Your task to perform on an android device: Show the shopping cart on ebay.com. Search for "usb-b" on ebay.com, select the first entry, add it to the cart, then select checkout. Image 0: 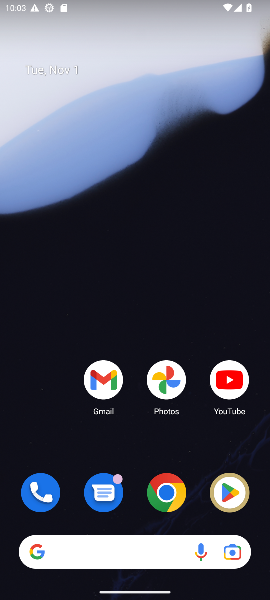
Step 0: click (166, 498)
Your task to perform on an android device: Show the shopping cart on ebay.com. Search for "usb-b" on ebay.com, select the first entry, add it to the cart, then select checkout. Image 1: 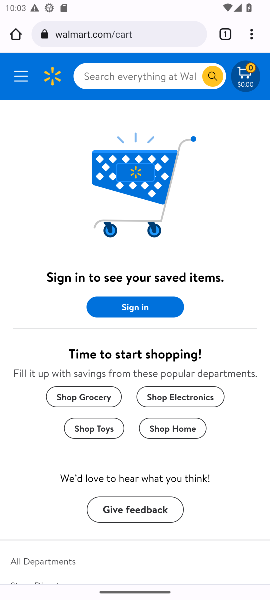
Step 1: press home button
Your task to perform on an android device: Show the shopping cart on ebay.com. Search for "usb-b" on ebay.com, select the first entry, add it to the cart, then select checkout. Image 2: 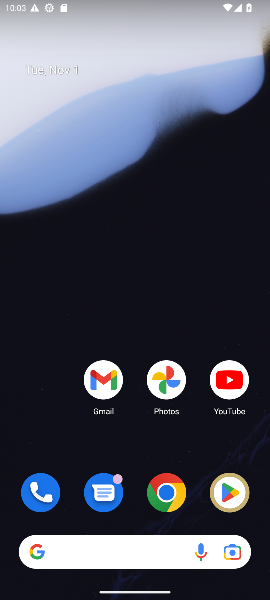
Step 2: click (165, 491)
Your task to perform on an android device: Show the shopping cart on ebay.com. Search for "usb-b" on ebay.com, select the first entry, add it to the cart, then select checkout. Image 3: 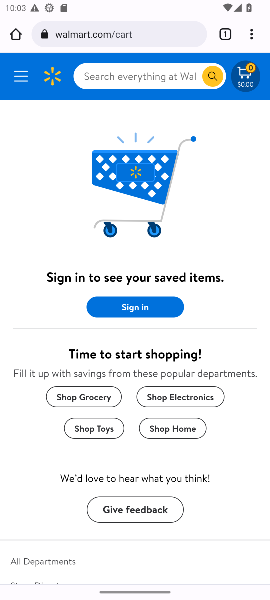
Step 3: click (91, 31)
Your task to perform on an android device: Show the shopping cart on ebay.com. Search for "usb-b" on ebay.com, select the first entry, add it to the cart, then select checkout. Image 4: 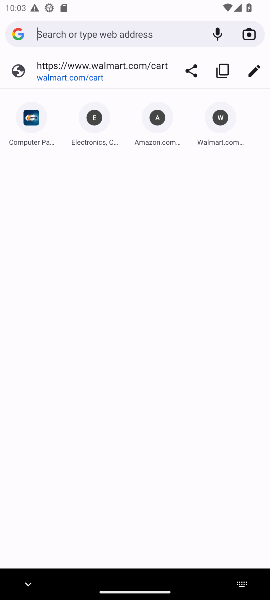
Step 4: type "ebay.com"
Your task to perform on an android device: Show the shopping cart on ebay.com. Search for "usb-b" on ebay.com, select the first entry, add it to the cart, then select checkout. Image 5: 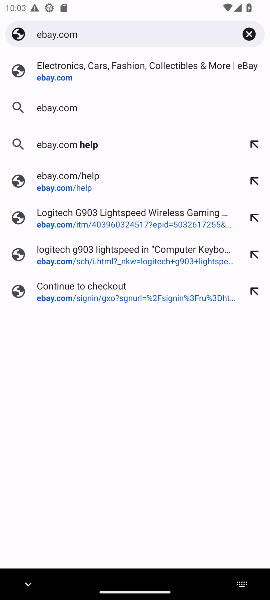
Step 5: click (67, 69)
Your task to perform on an android device: Show the shopping cart on ebay.com. Search for "usb-b" on ebay.com, select the first entry, add it to the cart, then select checkout. Image 6: 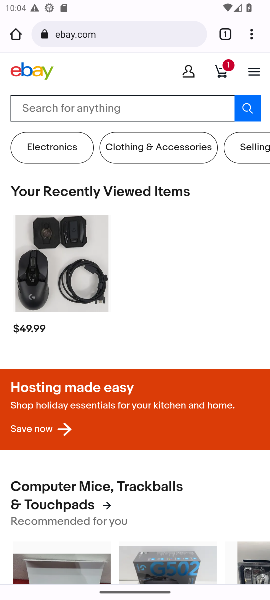
Step 6: click (93, 108)
Your task to perform on an android device: Show the shopping cart on ebay.com. Search for "usb-b" on ebay.com, select the first entry, add it to the cart, then select checkout. Image 7: 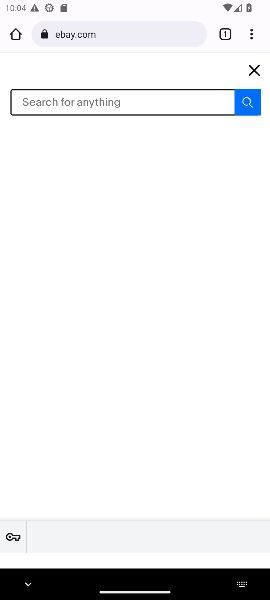
Step 7: type "usb - b "
Your task to perform on an android device: Show the shopping cart on ebay.com. Search for "usb-b" on ebay.com, select the first entry, add it to the cart, then select checkout. Image 8: 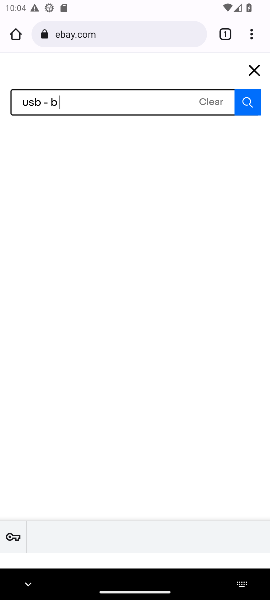
Step 8: type ""
Your task to perform on an android device: Show the shopping cart on ebay.com. Search for "usb-b" on ebay.com, select the first entry, add it to the cart, then select checkout. Image 9: 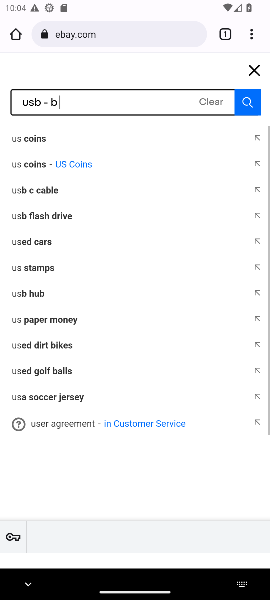
Step 9: click (21, 189)
Your task to perform on an android device: Show the shopping cart on ebay.com. Search for "usb-b" on ebay.com, select the first entry, add it to the cart, then select checkout. Image 10: 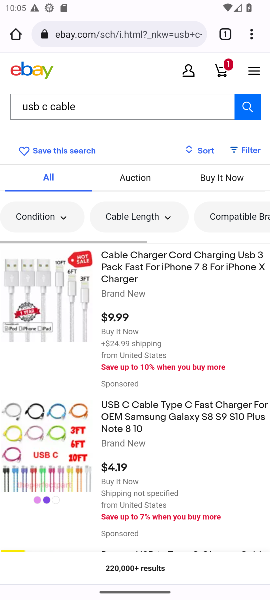
Step 10: drag from (74, 460) to (74, 329)
Your task to perform on an android device: Show the shopping cart on ebay.com. Search for "usb-b" on ebay.com, select the first entry, add it to the cart, then select checkout. Image 11: 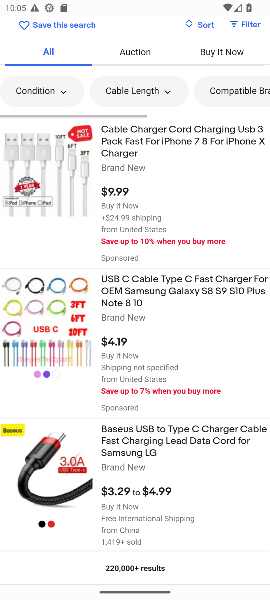
Step 11: drag from (132, 484) to (217, 142)
Your task to perform on an android device: Show the shopping cart on ebay.com. Search for "usb-b" on ebay.com, select the first entry, add it to the cart, then select checkout. Image 12: 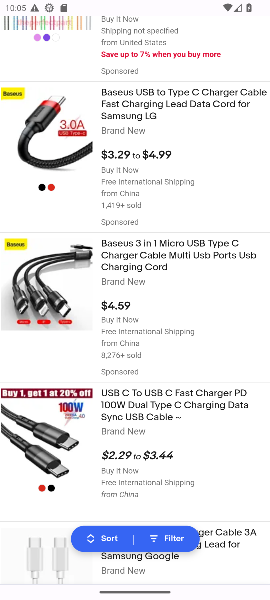
Step 12: drag from (149, 433) to (206, 105)
Your task to perform on an android device: Show the shopping cart on ebay.com. Search for "usb-b" on ebay.com, select the first entry, add it to the cart, then select checkout. Image 13: 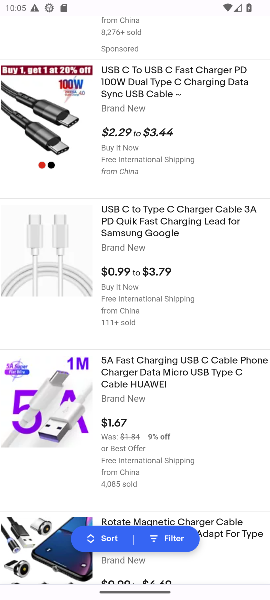
Step 13: click (164, 369)
Your task to perform on an android device: Show the shopping cart on ebay.com. Search for "usb-b" on ebay.com, select the first entry, add it to the cart, then select checkout. Image 14: 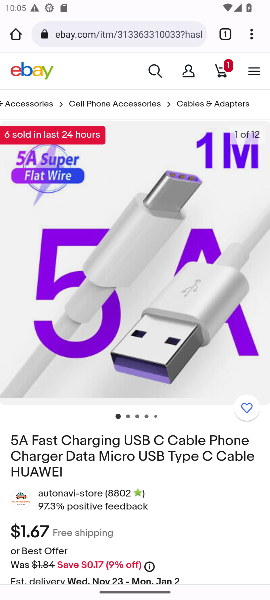
Step 14: drag from (168, 436) to (265, 66)
Your task to perform on an android device: Show the shopping cart on ebay.com. Search for "usb-b" on ebay.com, select the first entry, add it to the cart, then select checkout. Image 15: 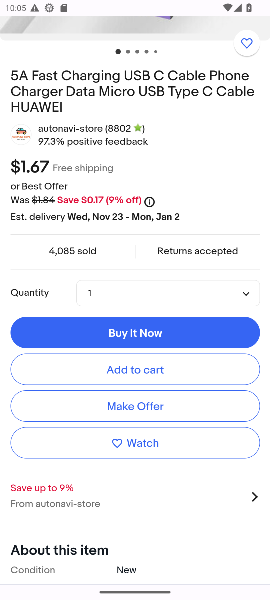
Step 15: click (136, 376)
Your task to perform on an android device: Show the shopping cart on ebay.com. Search for "usb-b" on ebay.com, select the first entry, add it to the cart, then select checkout. Image 16: 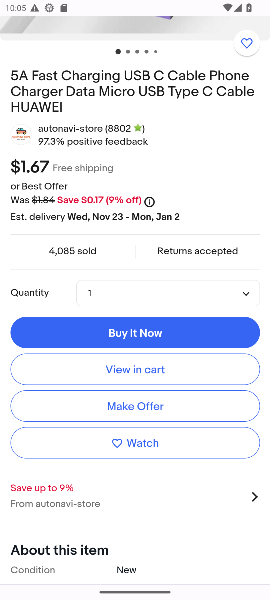
Step 16: click (160, 373)
Your task to perform on an android device: Show the shopping cart on ebay.com. Search for "usb-b" on ebay.com, select the first entry, add it to the cart, then select checkout. Image 17: 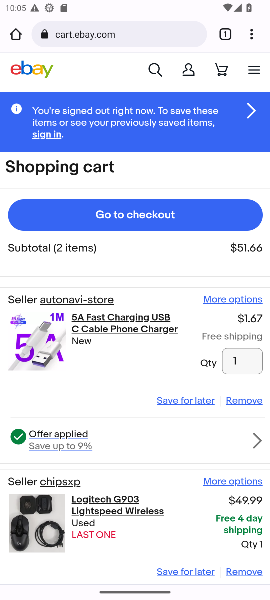
Step 17: click (139, 219)
Your task to perform on an android device: Show the shopping cart on ebay.com. Search for "usb-b" on ebay.com, select the first entry, add it to the cart, then select checkout. Image 18: 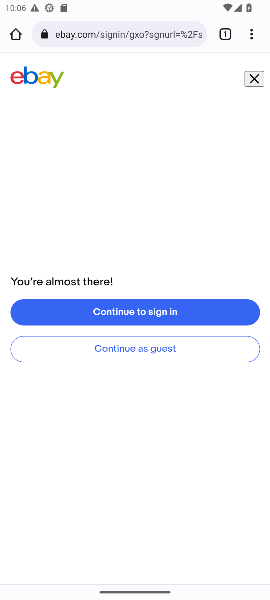
Step 18: click (178, 317)
Your task to perform on an android device: Show the shopping cart on ebay.com. Search for "usb-b" on ebay.com, select the first entry, add it to the cart, then select checkout. Image 19: 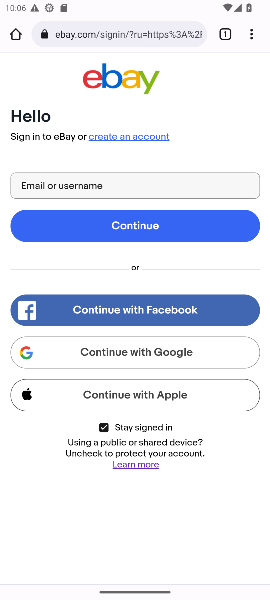
Step 19: press back button
Your task to perform on an android device: Show the shopping cart on ebay.com. Search for "usb-b" on ebay.com, select the first entry, add it to the cart, then select checkout. Image 20: 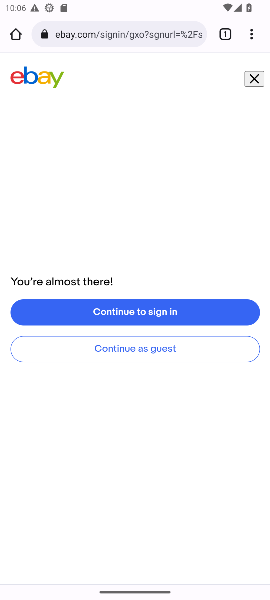
Step 20: press back button
Your task to perform on an android device: Show the shopping cart on ebay.com. Search for "usb-b" on ebay.com, select the first entry, add it to the cart, then select checkout. Image 21: 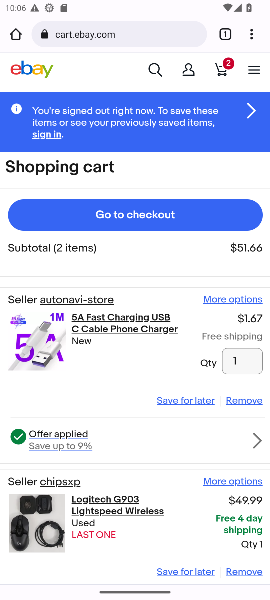
Step 21: click (160, 219)
Your task to perform on an android device: Show the shopping cart on ebay.com. Search for "usb-b" on ebay.com, select the first entry, add it to the cart, then select checkout. Image 22: 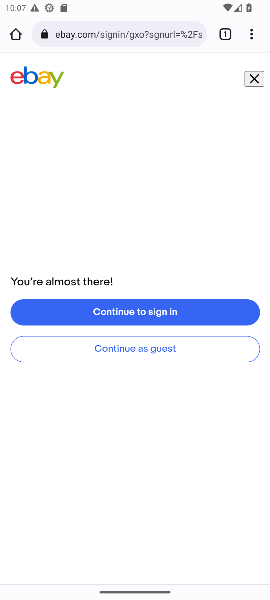
Step 22: task complete